Your task to perform on an android device: turn off javascript in the chrome app Image 0: 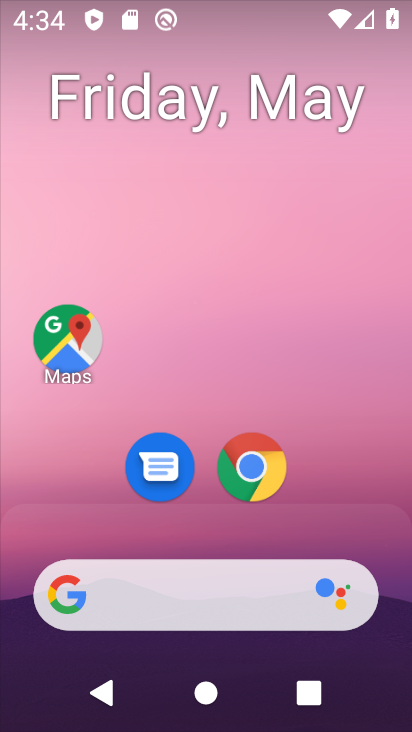
Step 0: task complete